Your task to perform on an android device: Find coffee shops on Maps Image 0: 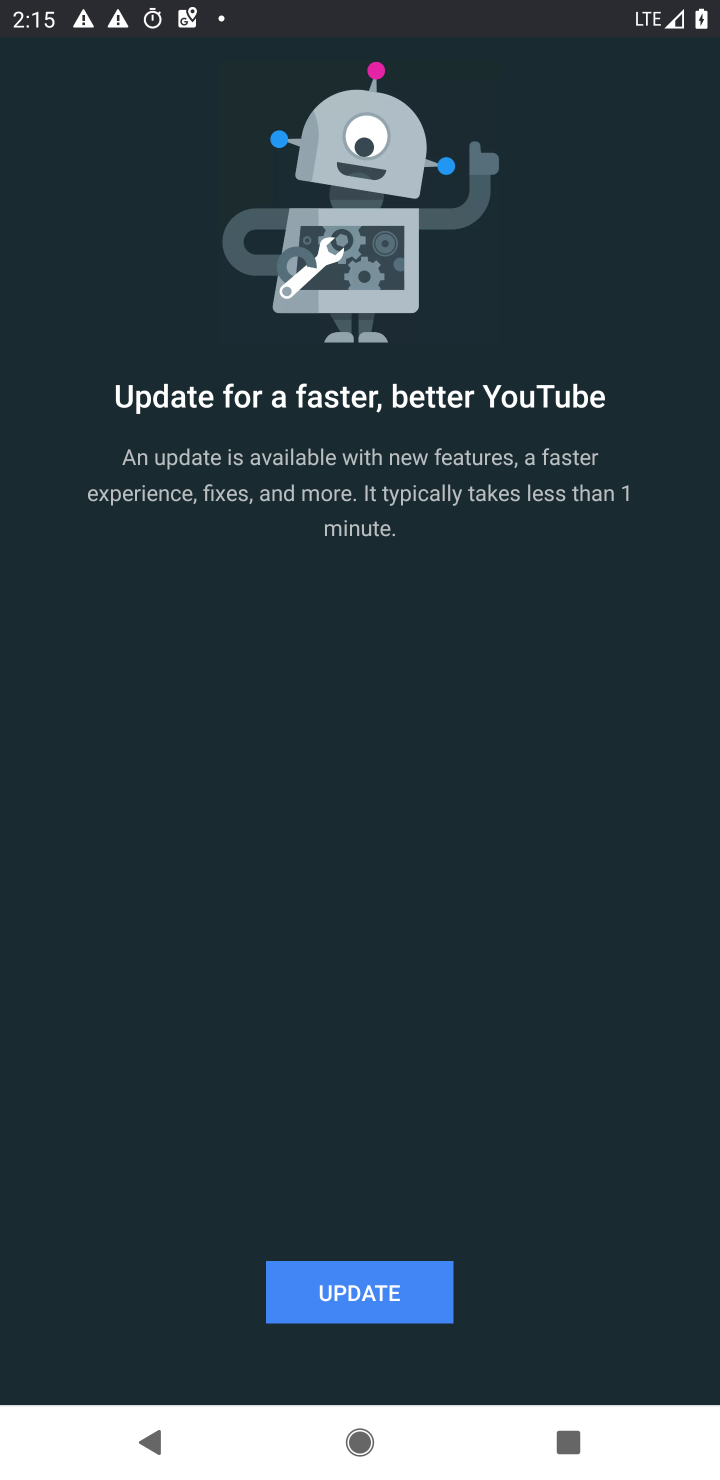
Step 0: press home button
Your task to perform on an android device: Find coffee shops on Maps Image 1: 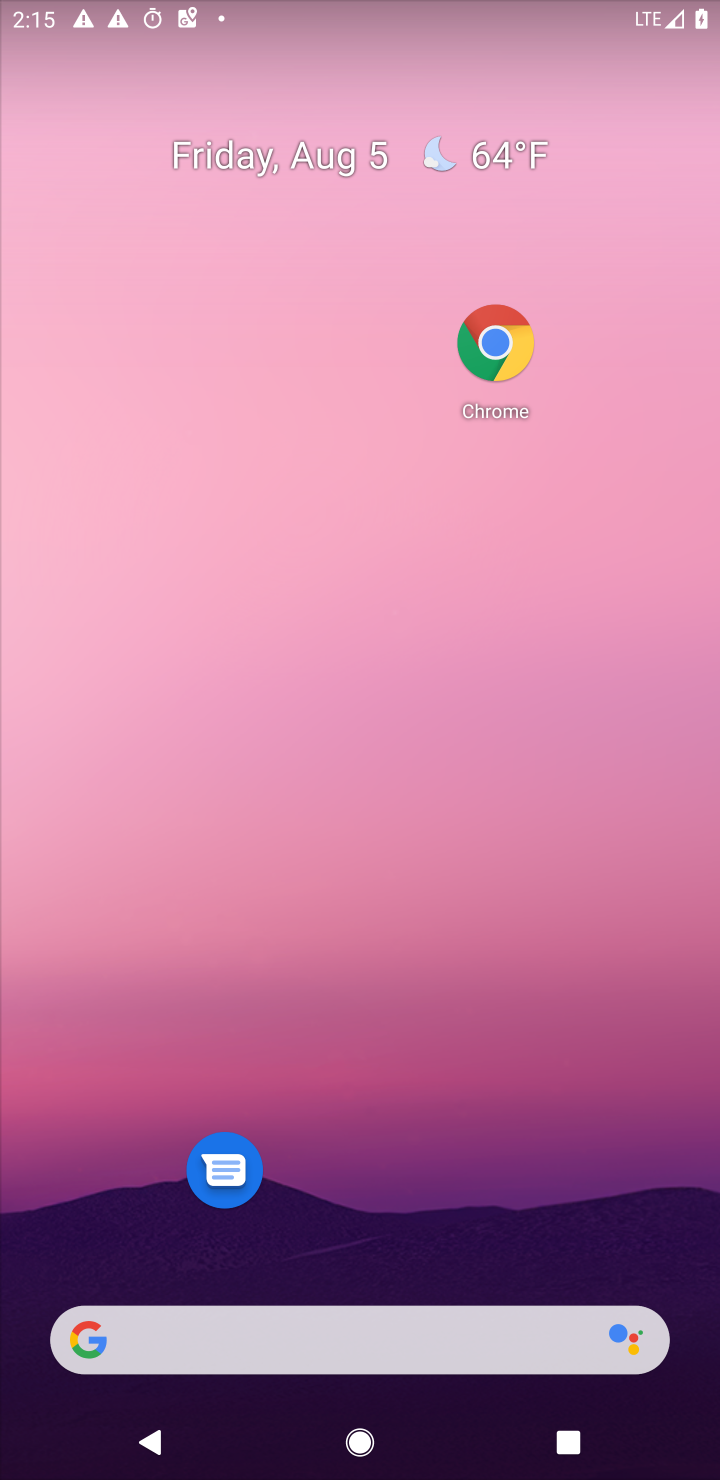
Step 1: drag from (371, 767) to (343, 145)
Your task to perform on an android device: Find coffee shops on Maps Image 2: 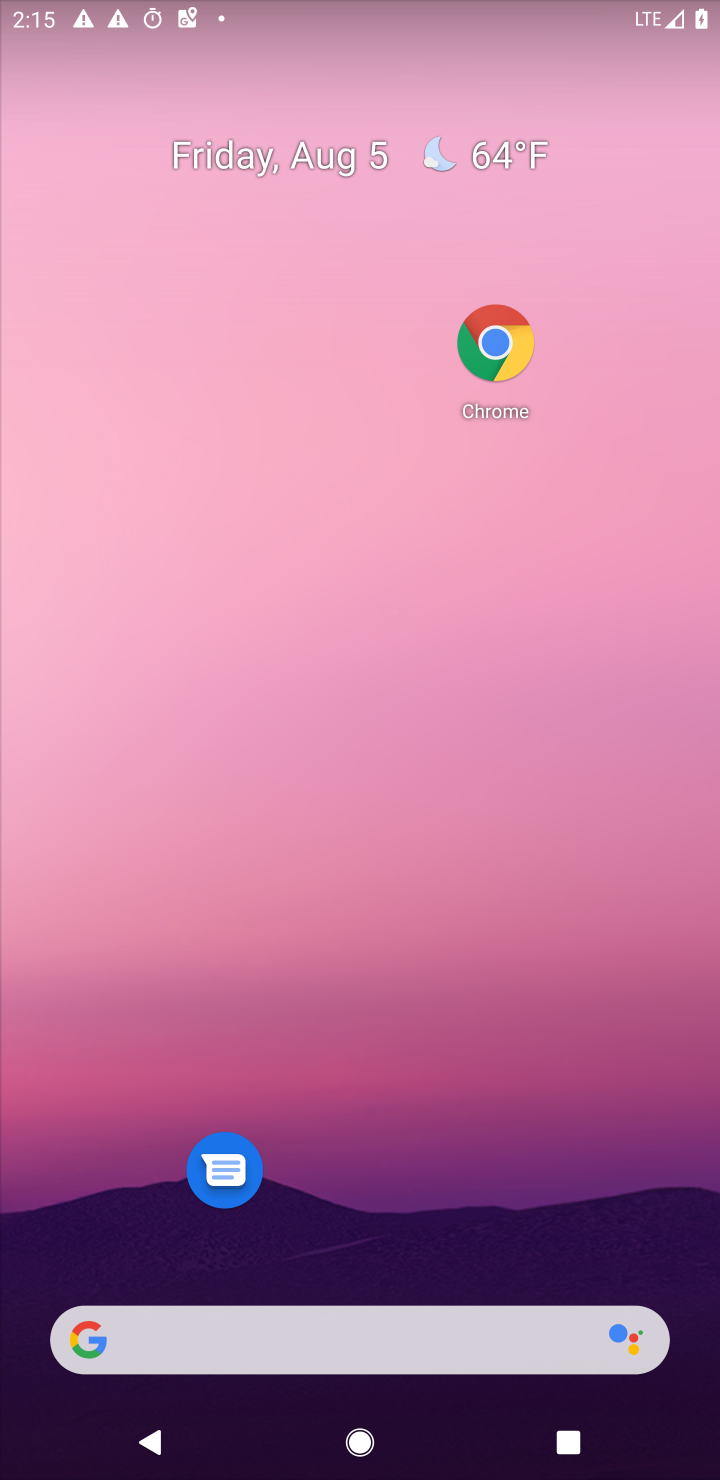
Step 2: drag from (391, 496) to (397, 14)
Your task to perform on an android device: Find coffee shops on Maps Image 3: 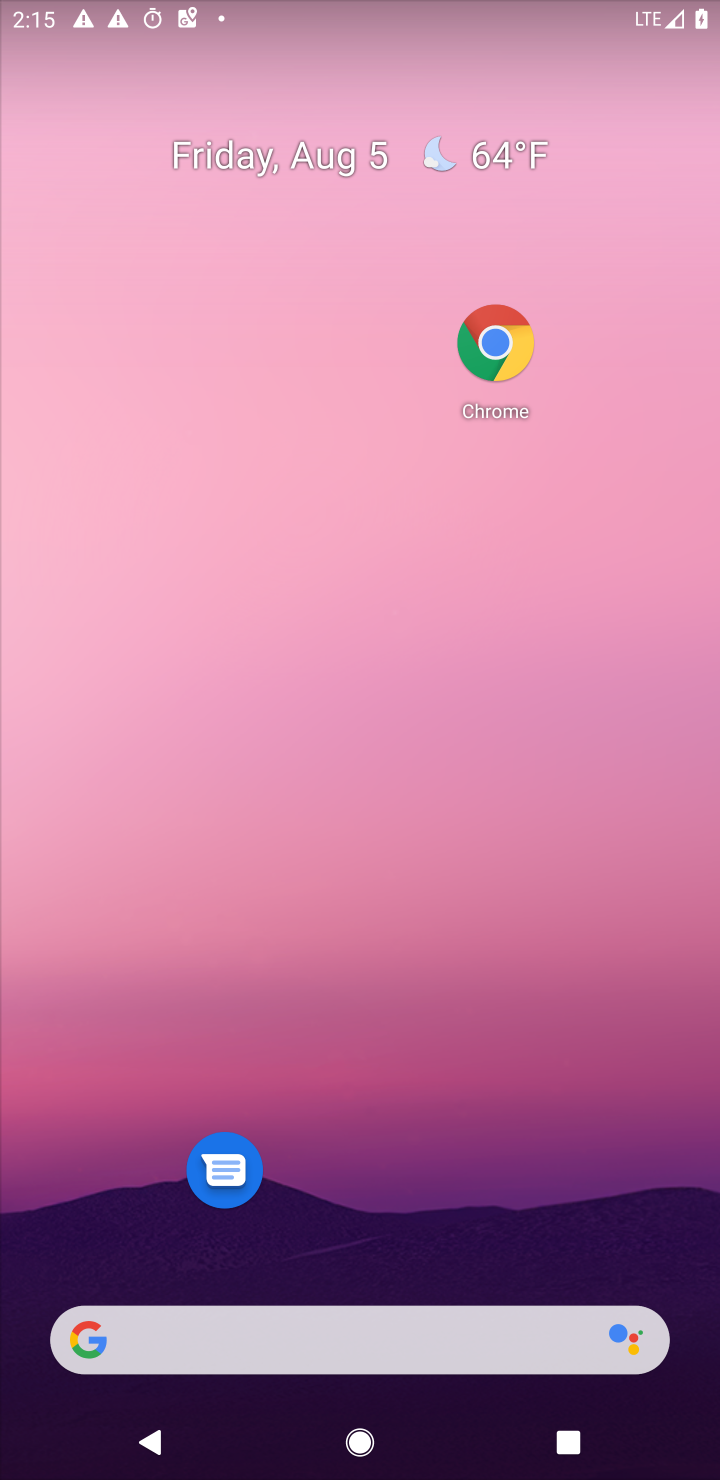
Step 3: drag from (389, 1194) to (332, 111)
Your task to perform on an android device: Find coffee shops on Maps Image 4: 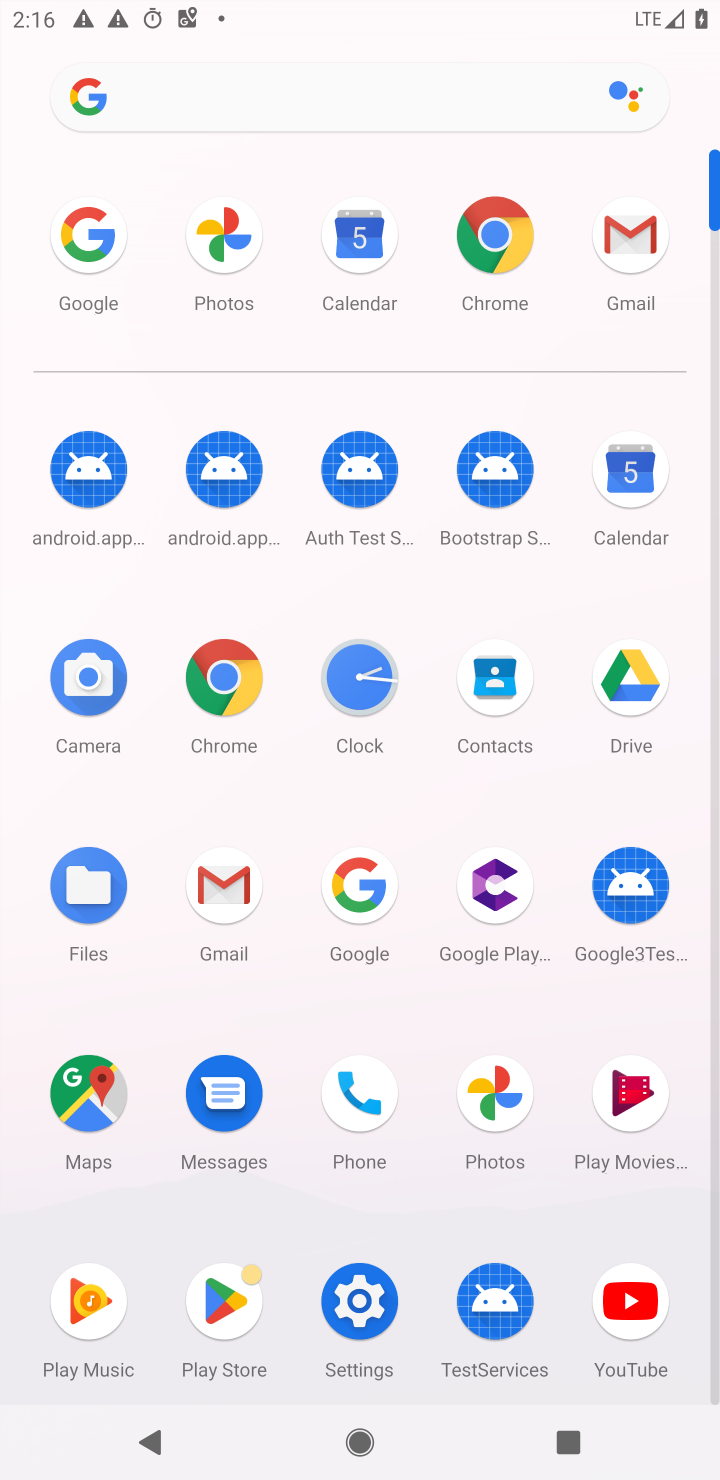
Step 4: click (114, 1112)
Your task to perform on an android device: Find coffee shops on Maps Image 5: 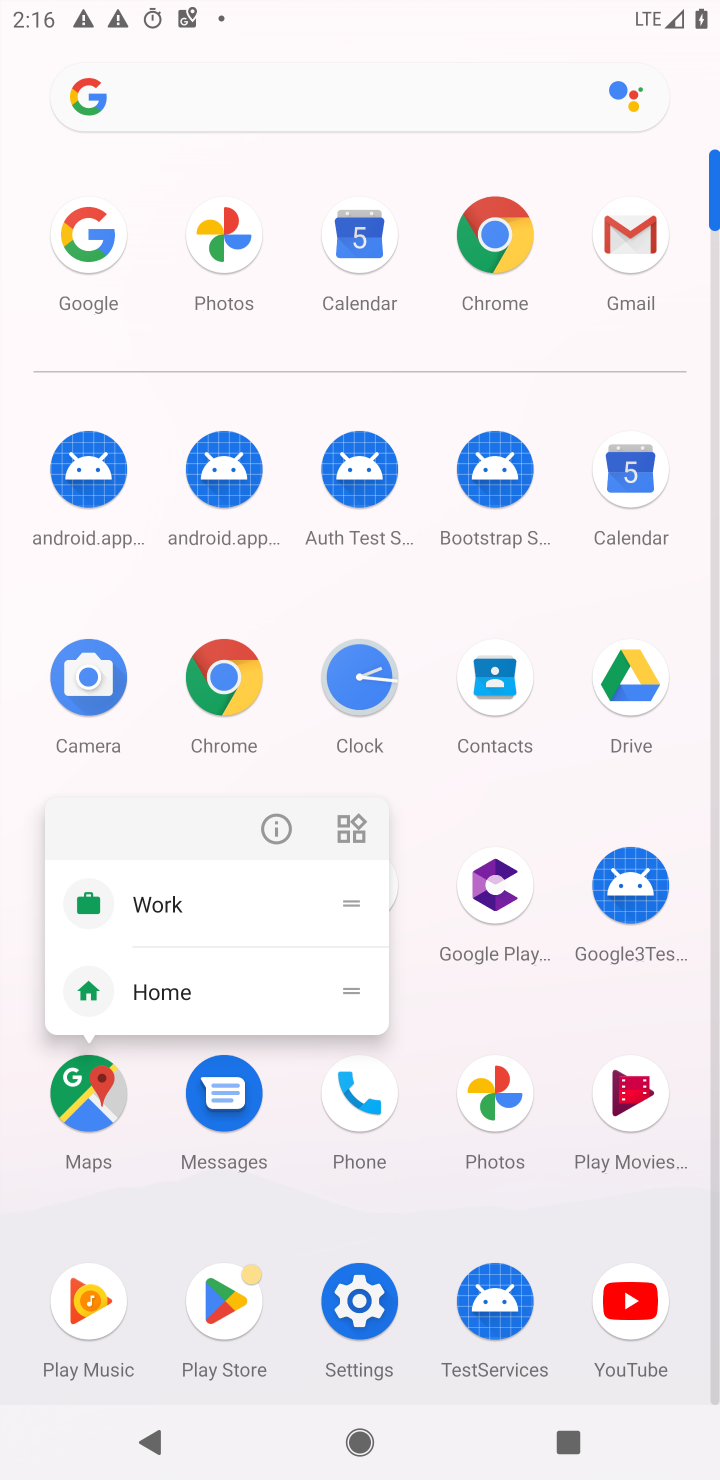
Step 5: click (113, 1111)
Your task to perform on an android device: Find coffee shops on Maps Image 6: 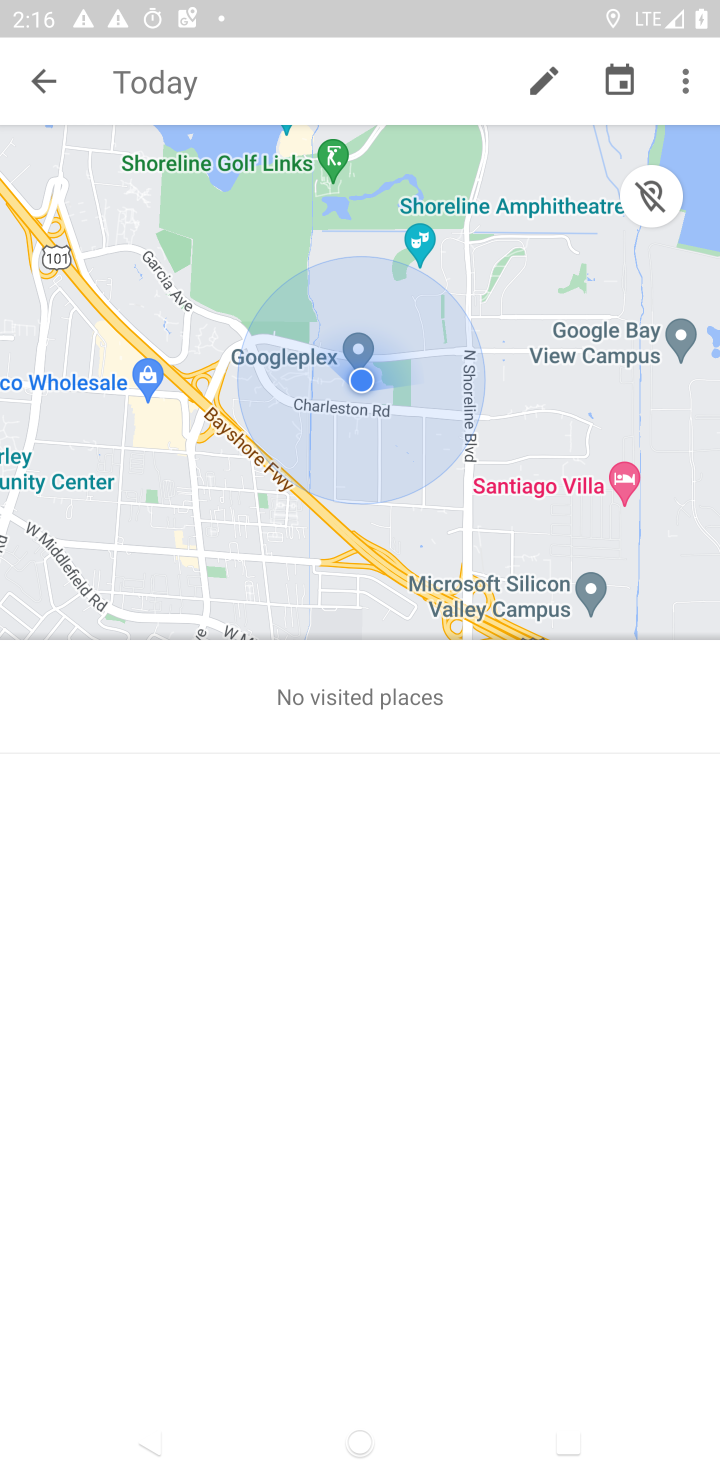
Step 6: press back button
Your task to perform on an android device: Find coffee shops on Maps Image 7: 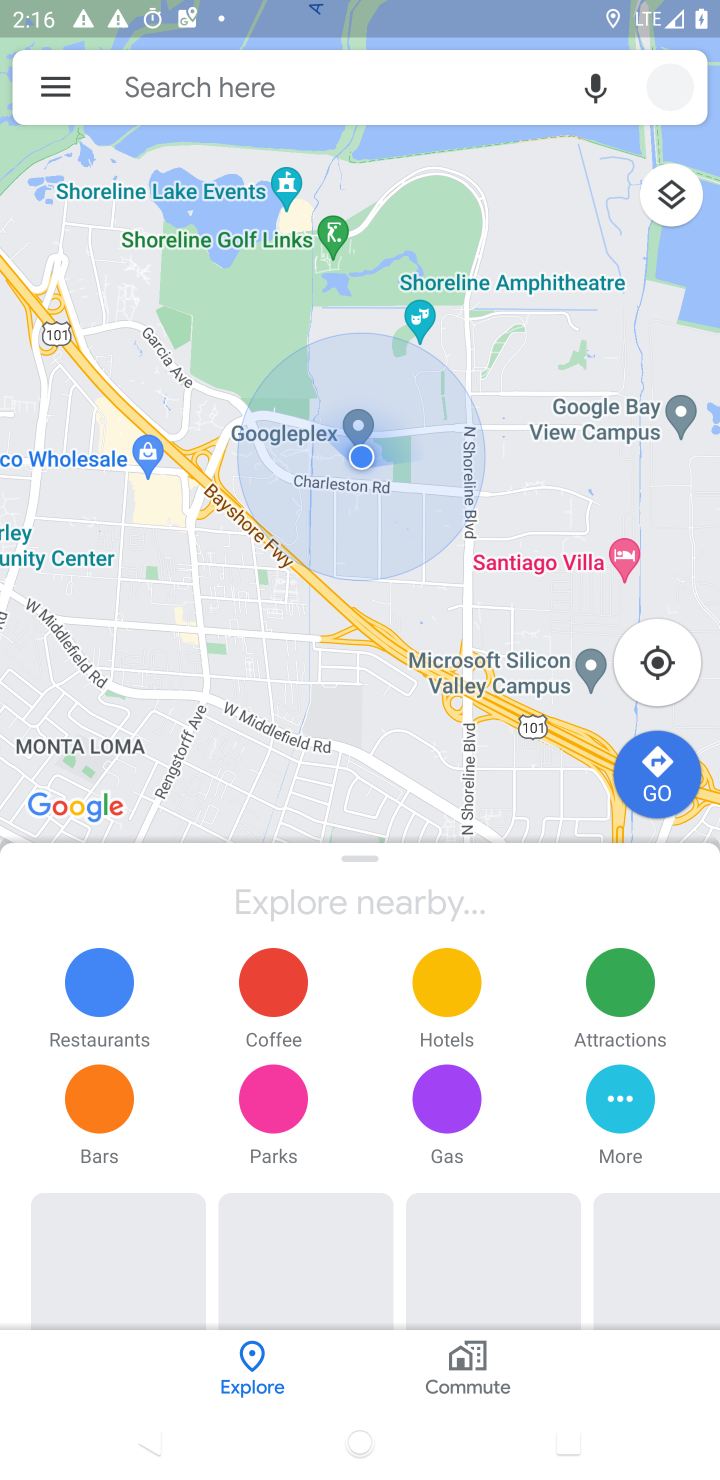
Step 7: click (235, 83)
Your task to perform on an android device: Find coffee shops on Maps Image 8: 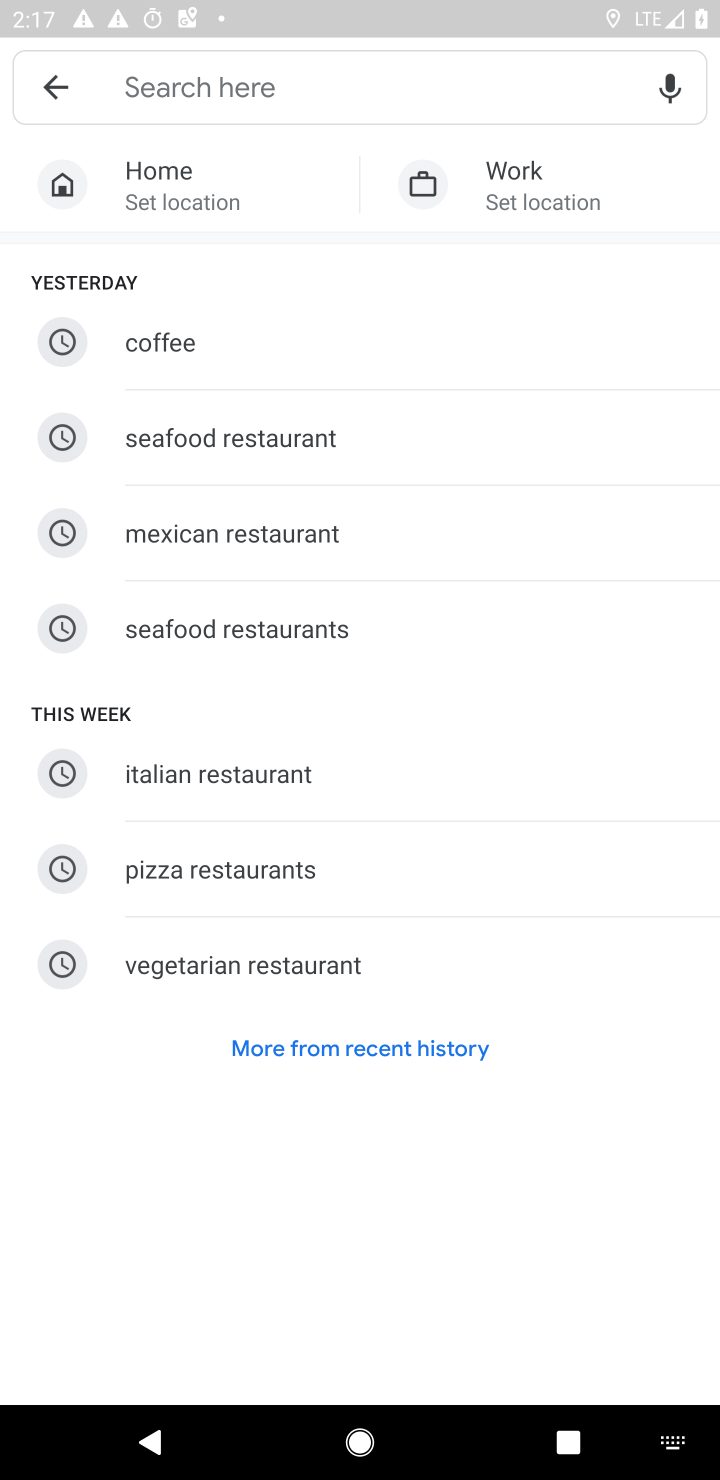
Step 8: click (225, 94)
Your task to perform on an android device: Find coffee shops on Maps Image 9: 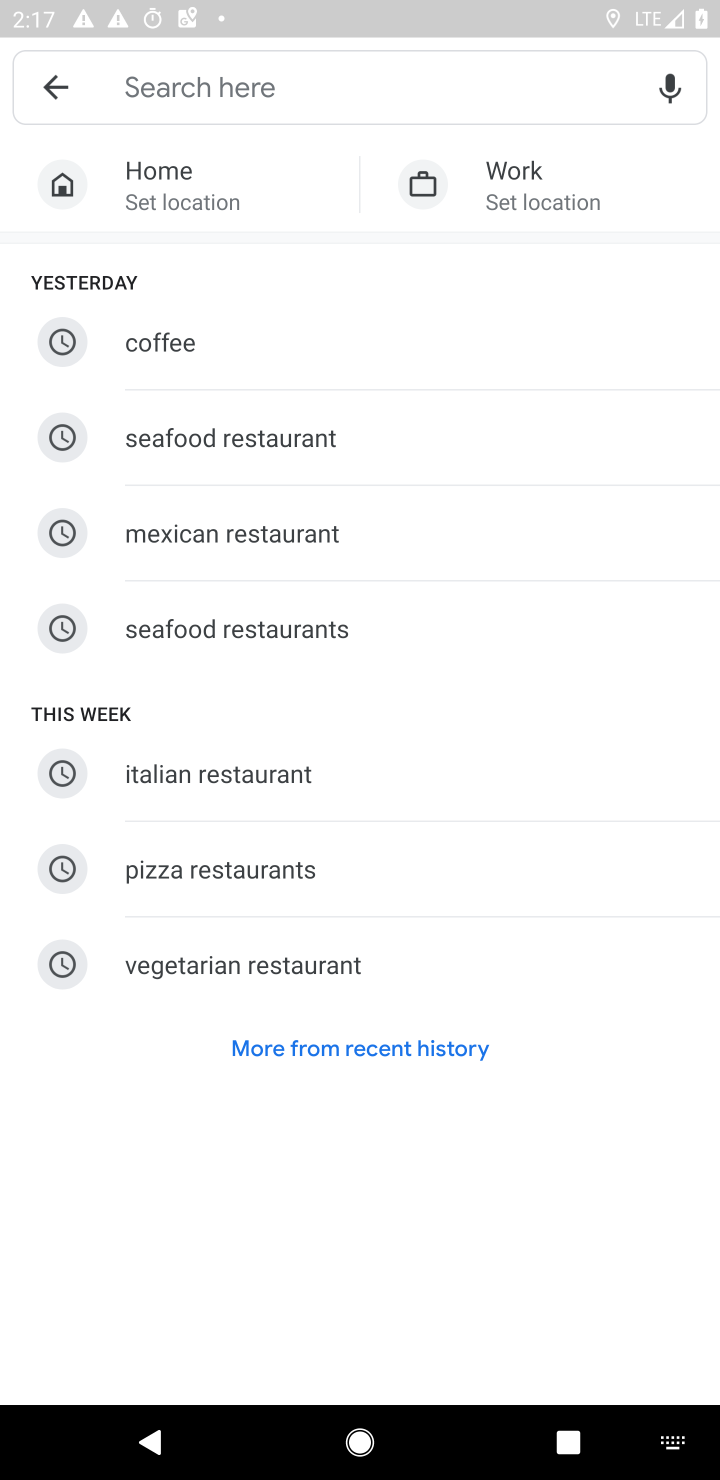
Step 9: type " coffee shops"
Your task to perform on an android device: Find coffee shops on Maps Image 10: 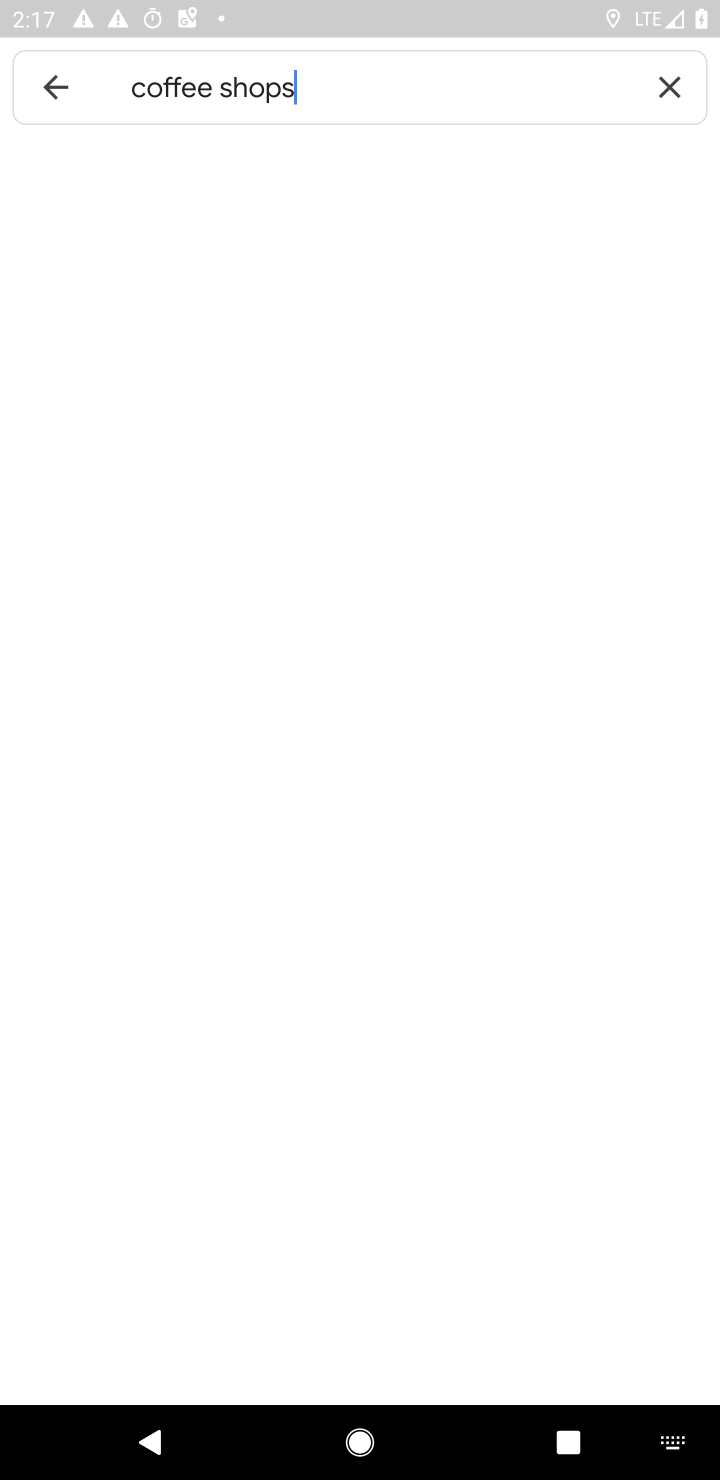
Step 10: type ""
Your task to perform on an android device: Find coffee shops on Maps Image 11: 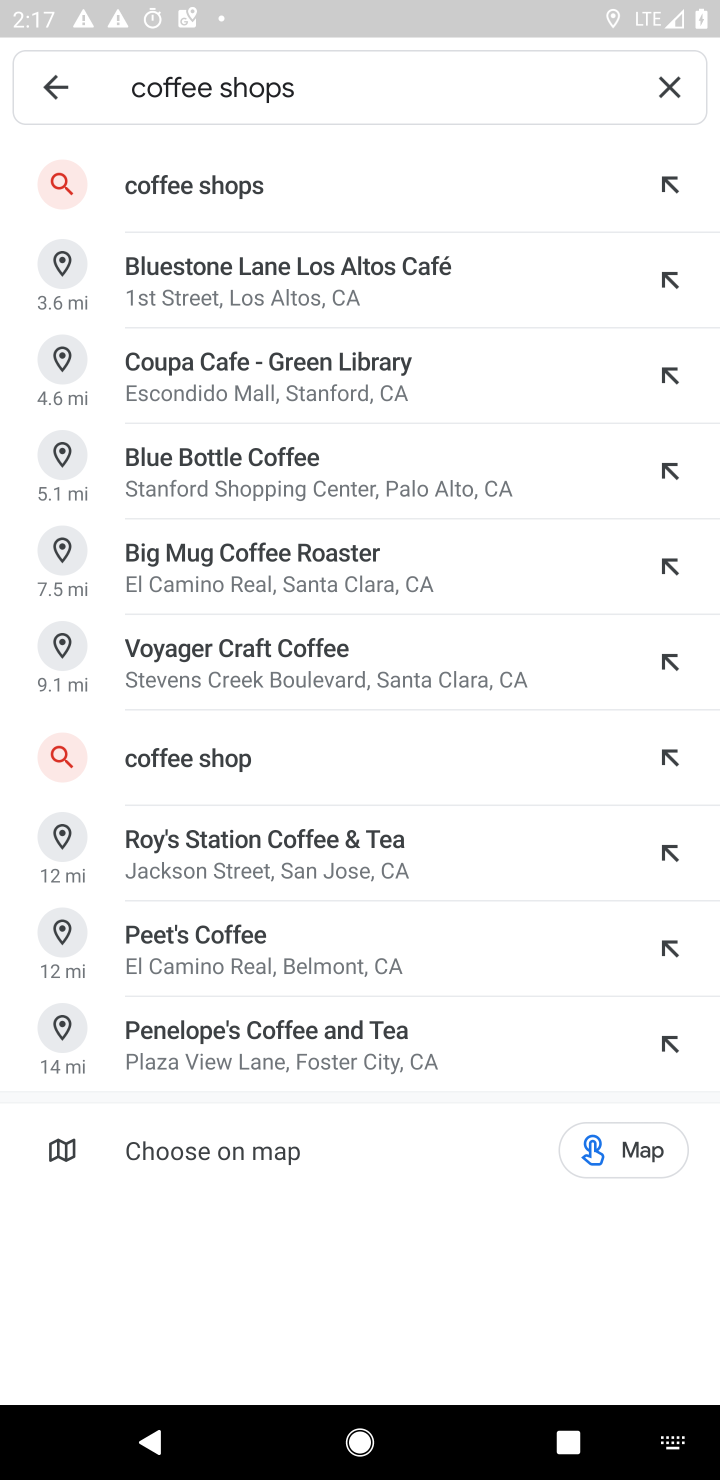
Step 11: click (279, 195)
Your task to perform on an android device: Find coffee shops on Maps Image 12: 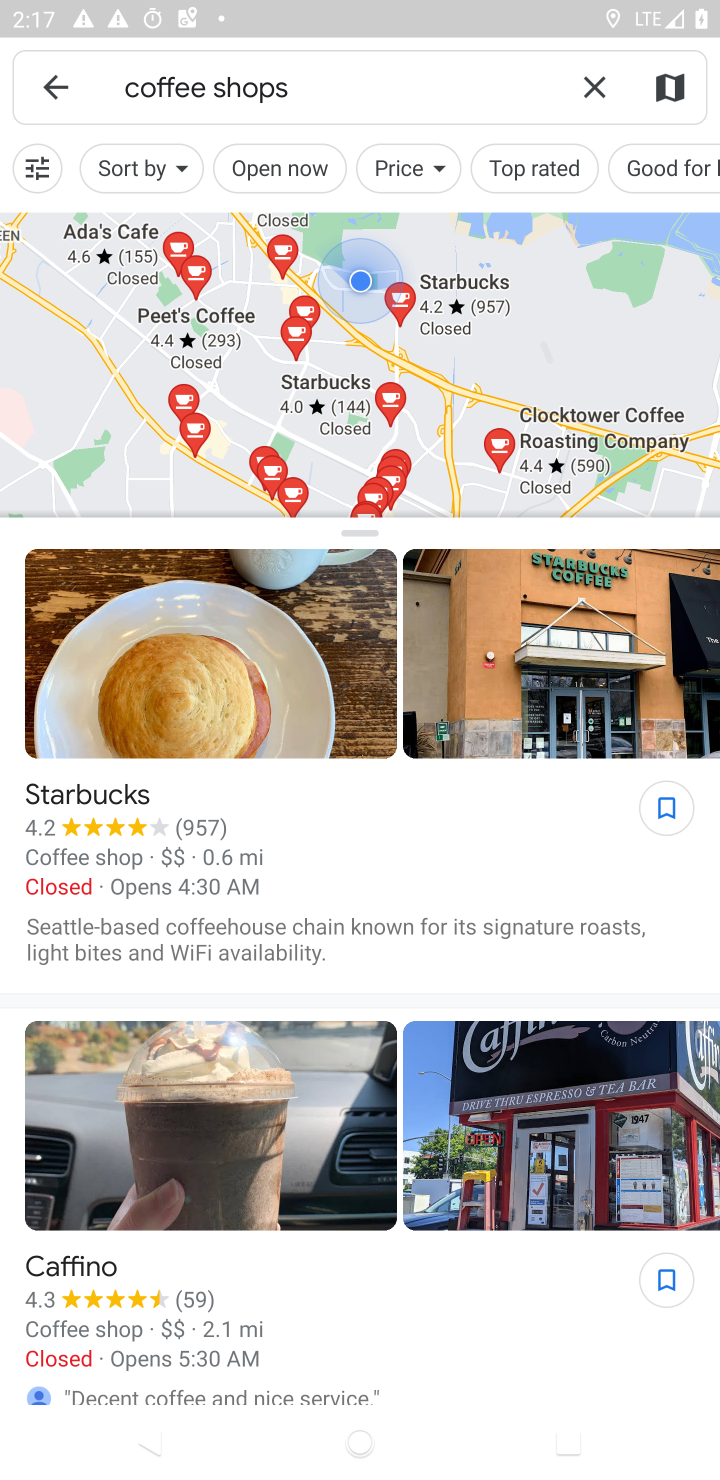
Step 12: task complete